Your task to perform on an android device: check battery use Image 0: 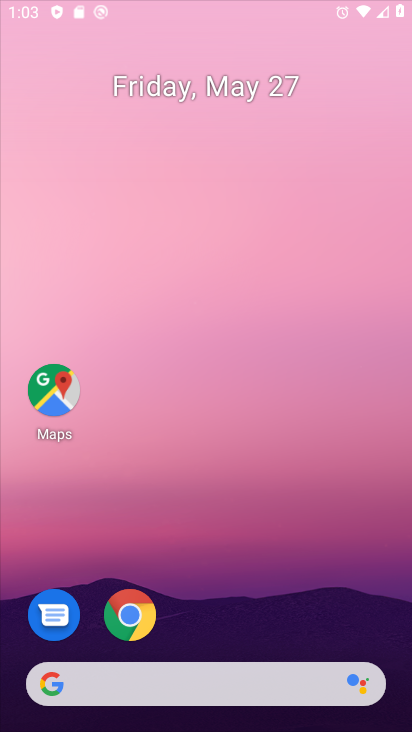
Step 0: press home button
Your task to perform on an android device: check battery use Image 1: 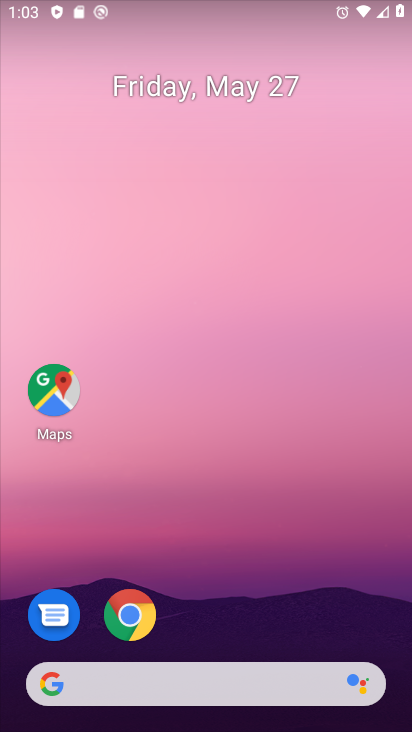
Step 1: drag from (296, 611) to (287, 256)
Your task to perform on an android device: check battery use Image 2: 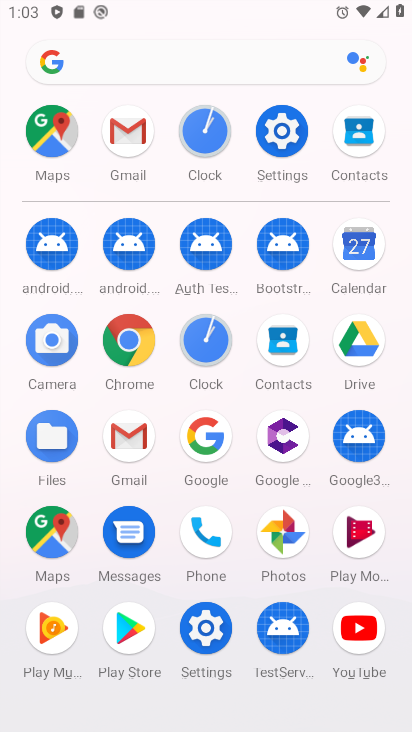
Step 2: click (295, 142)
Your task to perform on an android device: check battery use Image 3: 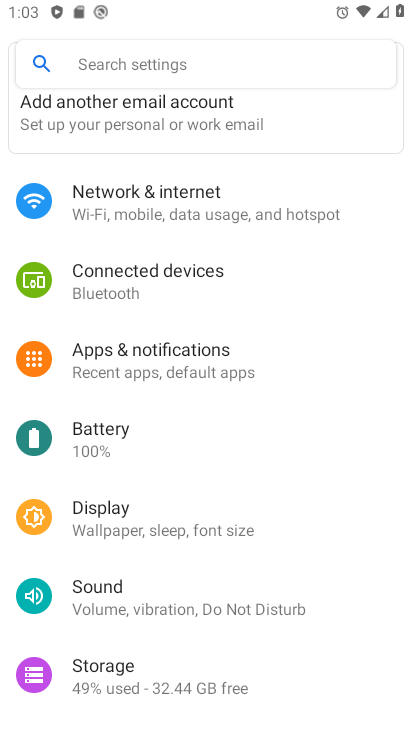
Step 3: click (95, 429)
Your task to perform on an android device: check battery use Image 4: 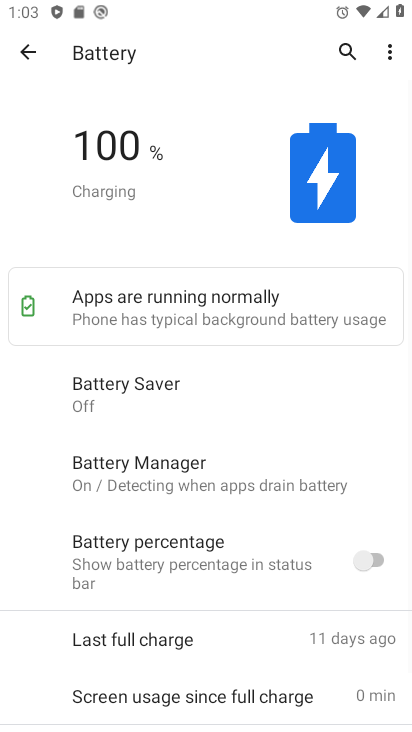
Step 4: click (389, 59)
Your task to perform on an android device: check battery use Image 5: 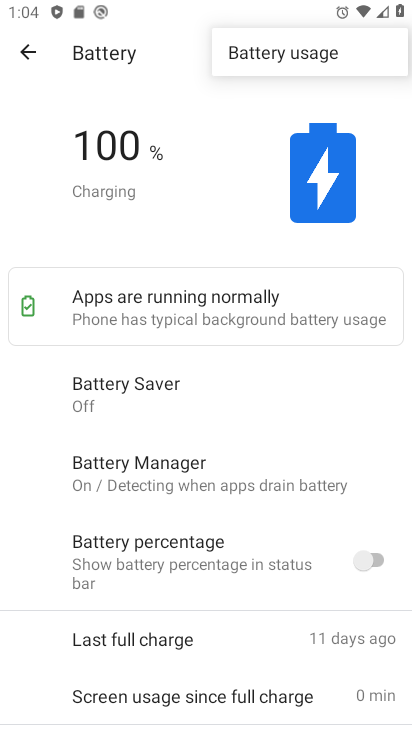
Step 5: click (300, 59)
Your task to perform on an android device: check battery use Image 6: 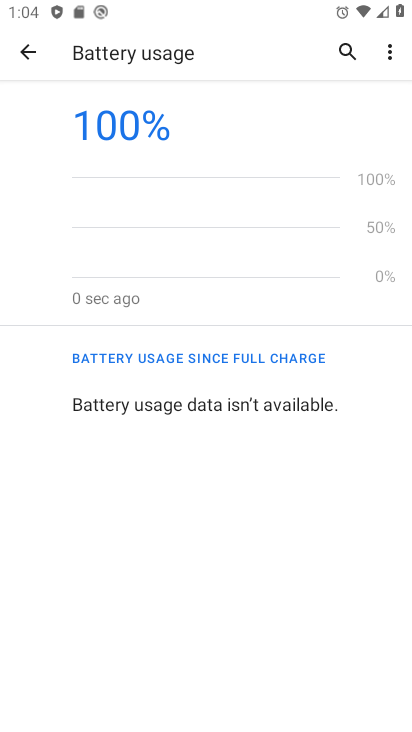
Step 6: task complete